Your task to perform on an android device: Open privacy settings Image 0: 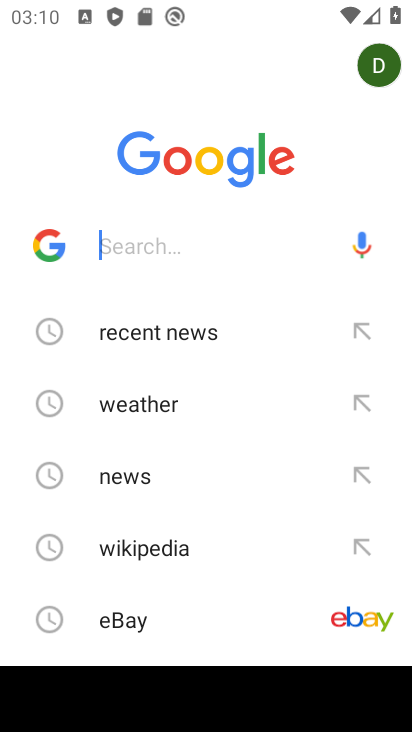
Step 0: press home button
Your task to perform on an android device: Open privacy settings Image 1: 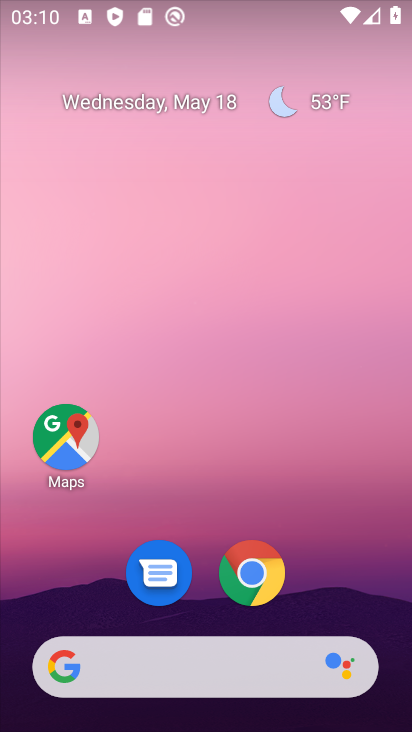
Step 1: drag from (204, 616) to (240, 207)
Your task to perform on an android device: Open privacy settings Image 2: 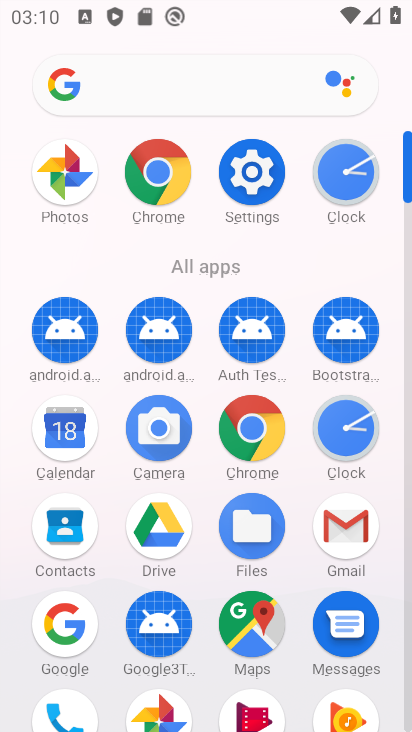
Step 2: click (253, 192)
Your task to perform on an android device: Open privacy settings Image 3: 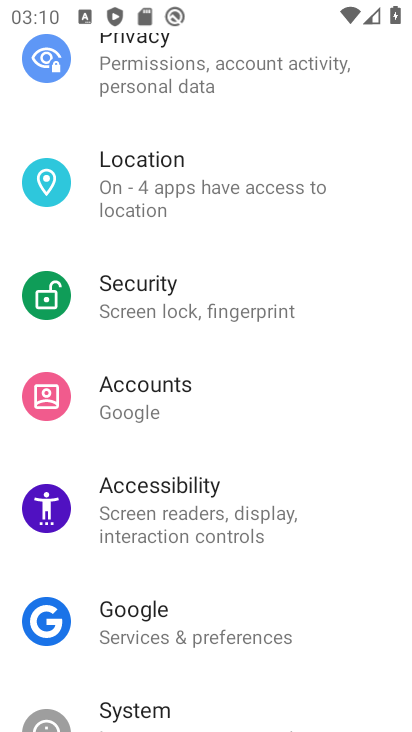
Step 3: click (207, 63)
Your task to perform on an android device: Open privacy settings Image 4: 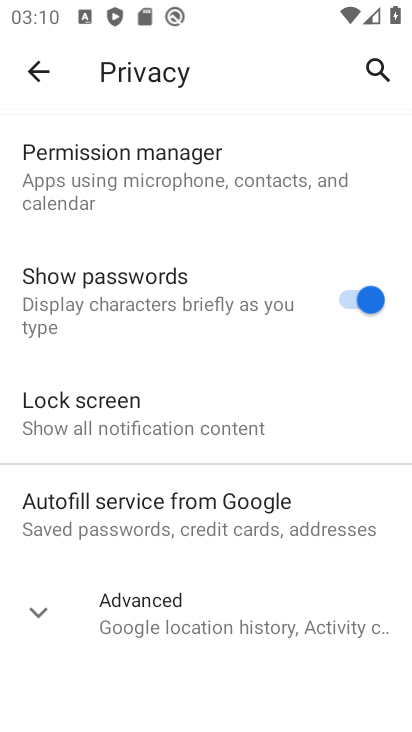
Step 4: task complete